Your task to perform on an android device: snooze an email in the gmail app Image 0: 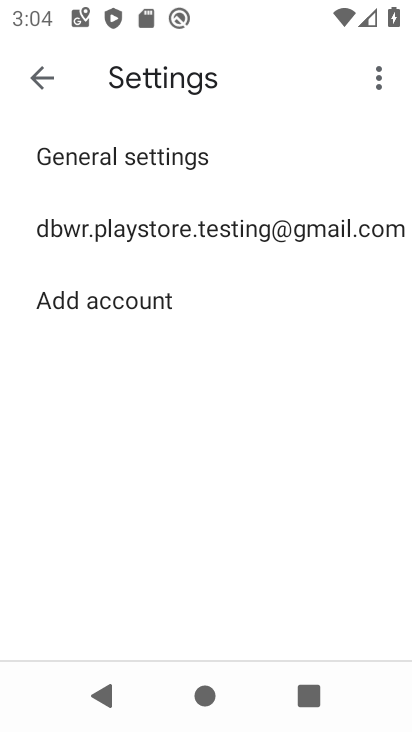
Step 0: click (38, 60)
Your task to perform on an android device: snooze an email in the gmail app Image 1: 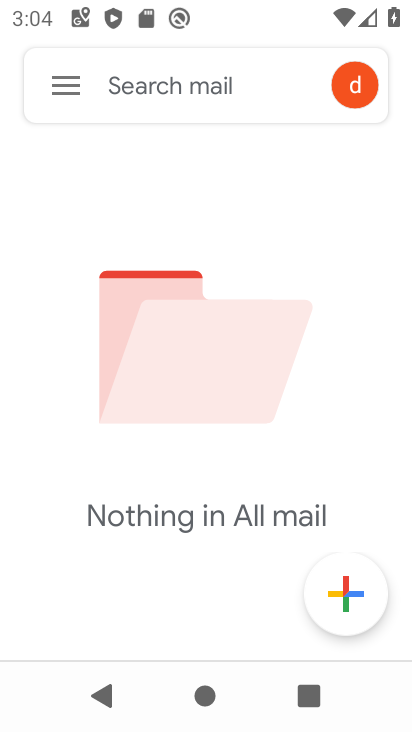
Step 1: task complete